Your task to perform on an android device: Do I have any events today? Image 0: 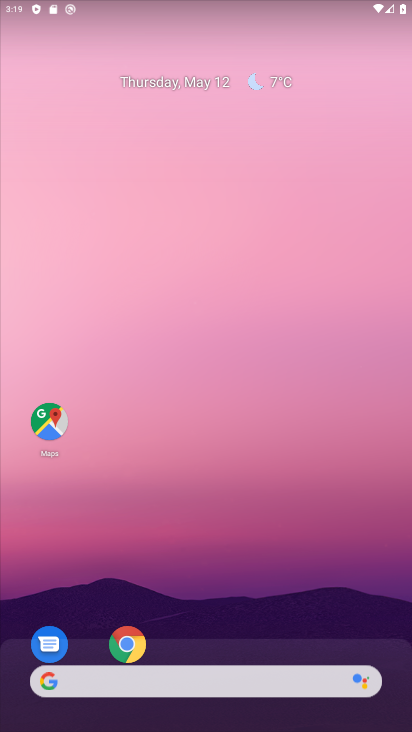
Step 0: drag from (209, 641) to (256, 78)
Your task to perform on an android device: Do I have any events today? Image 1: 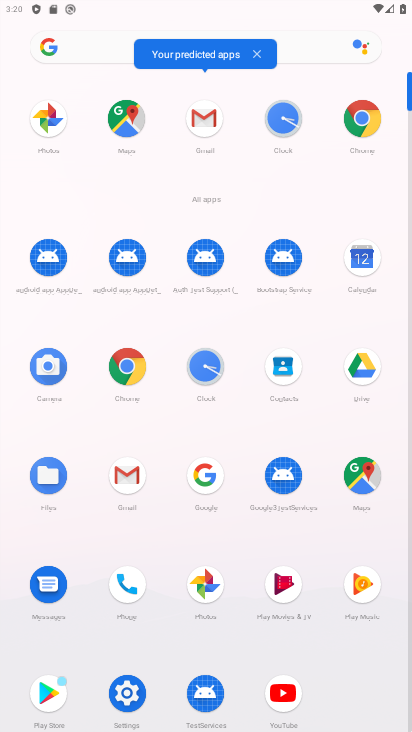
Step 1: click (365, 257)
Your task to perform on an android device: Do I have any events today? Image 2: 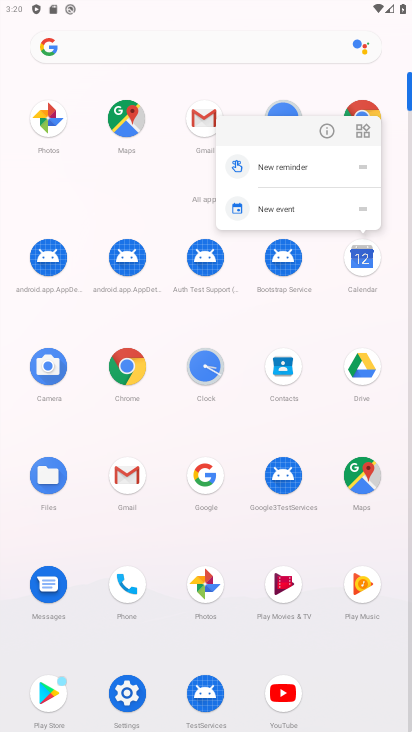
Step 2: click (359, 261)
Your task to perform on an android device: Do I have any events today? Image 3: 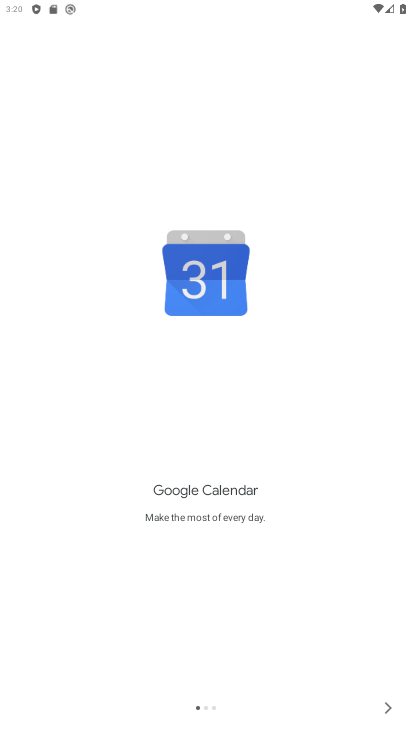
Step 3: click (391, 703)
Your task to perform on an android device: Do I have any events today? Image 4: 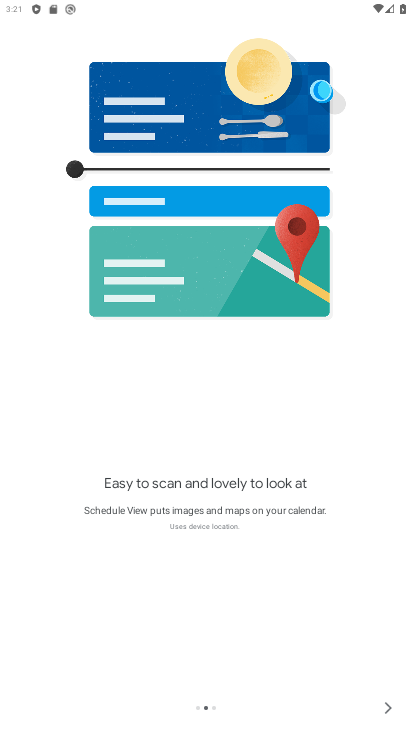
Step 4: click (388, 706)
Your task to perform on an android device: Do I have any events today? Image 5: 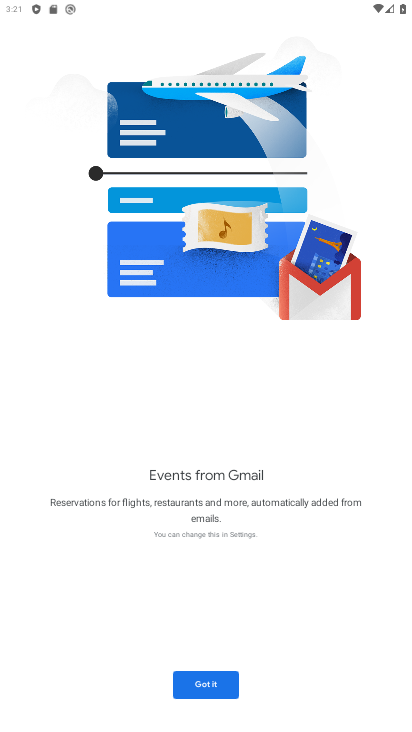
Step 5: click (207, 682)
Your task to perform on an android device: Do I have any events today? Image 6: 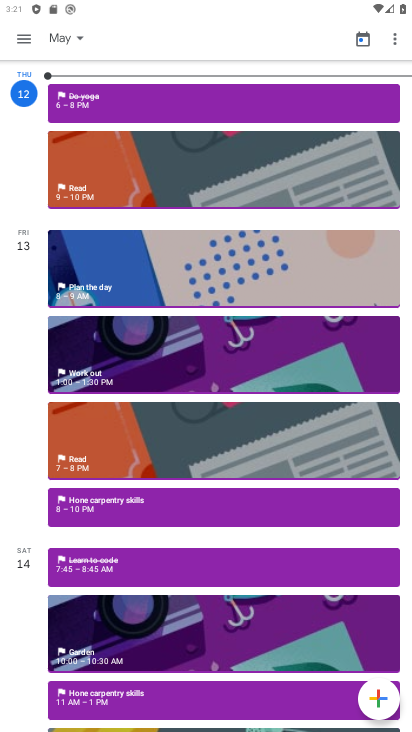
Step 6: click (17, 133)
Your task to perform on an android device: Do I have any events today? Image 7: 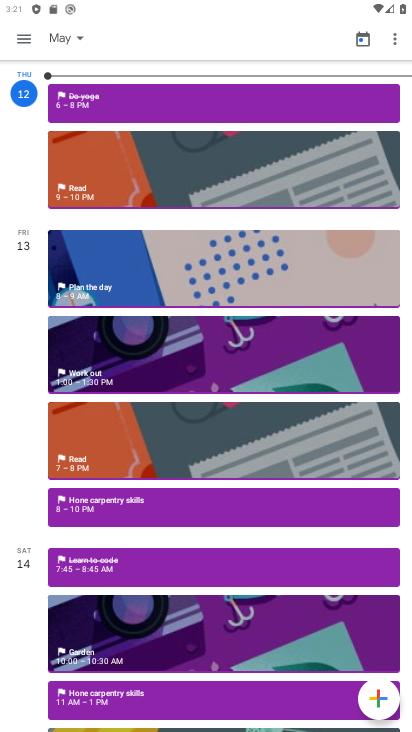
Step 7: click (24, 122)
Your task to perform on an android device: Do I have any events today? Image 8: 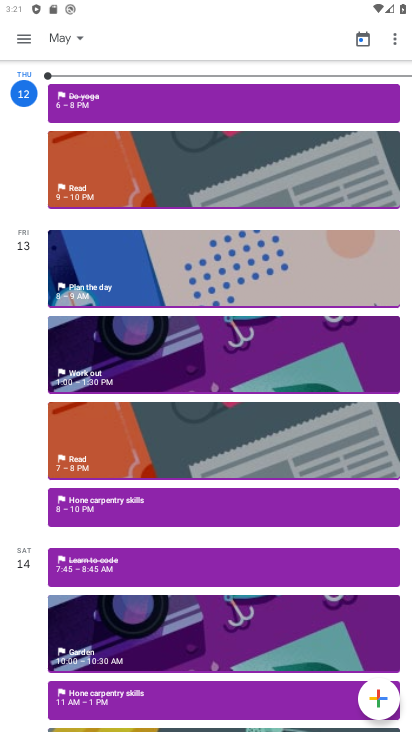
Step 8: click (26, 35)
Your task to perform on an android device: Do I have any events today? Image 9: 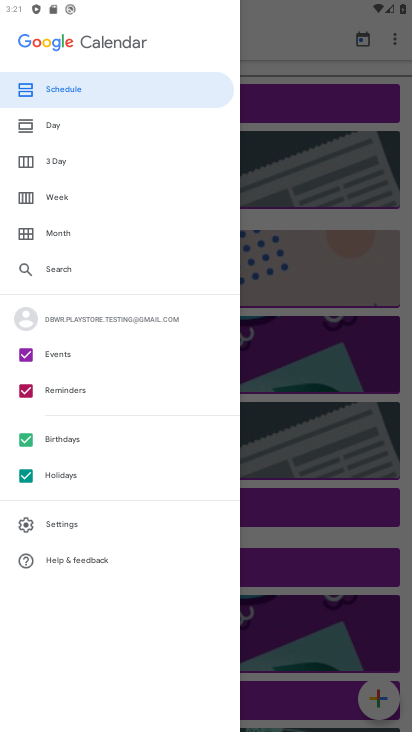
Step 9: click (25, 471)
Your task to perform on an android device: Do I have any events today? Image 10: 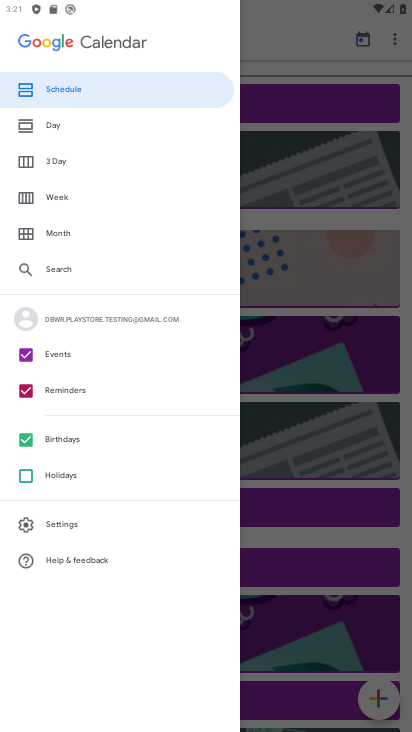
Step 10: click (24, 436)
Your task to perform on an android device: Do I have any events today? Image 11: 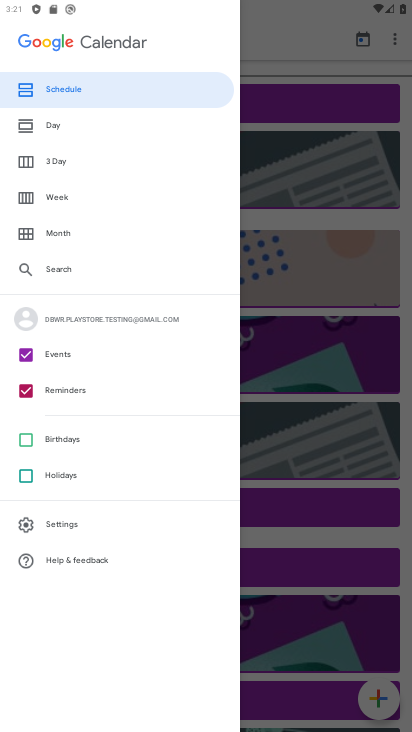
Step 11: click (21, 387)
Your task to perform on an android device: Do I have any events today? Image 12: 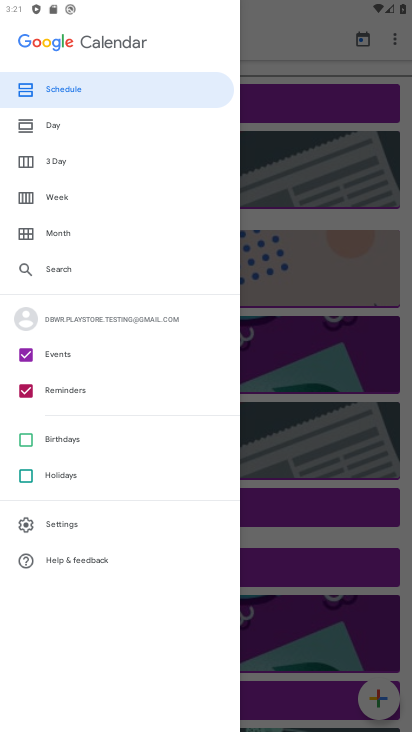
Step 12: click (36, 126)
Your task to perform on an android device: Do I have any events today? Image 13: 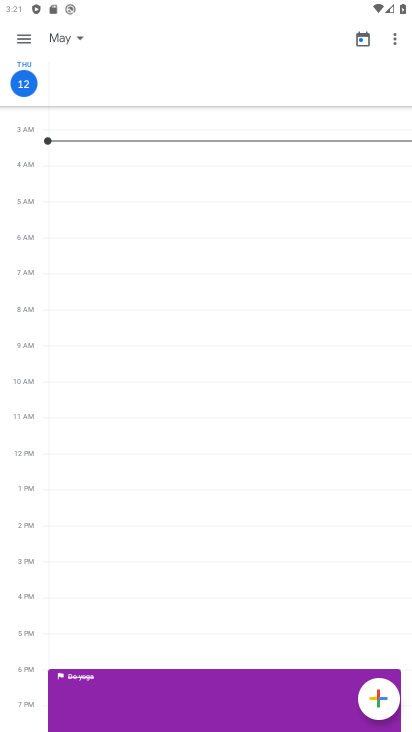
Step 13: task complete